Your task to perform on an android device: see tabs open on other devices in the chrome app Image 0: 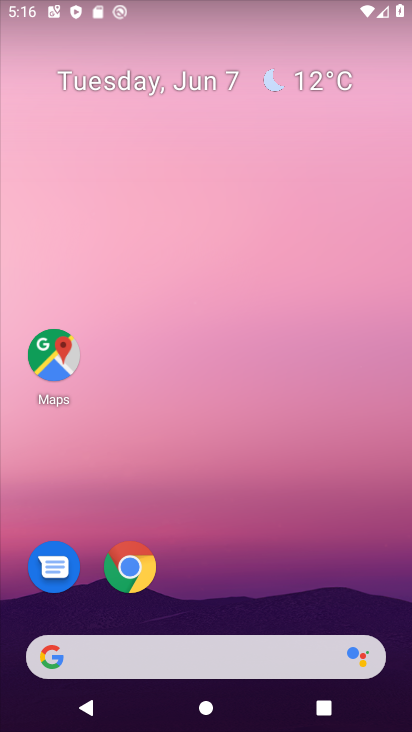
Step 0: drag from (267, 551) to (223, 32)
Your task to perform on an android device: see tabs open on other devices in the chrome app Image 1: 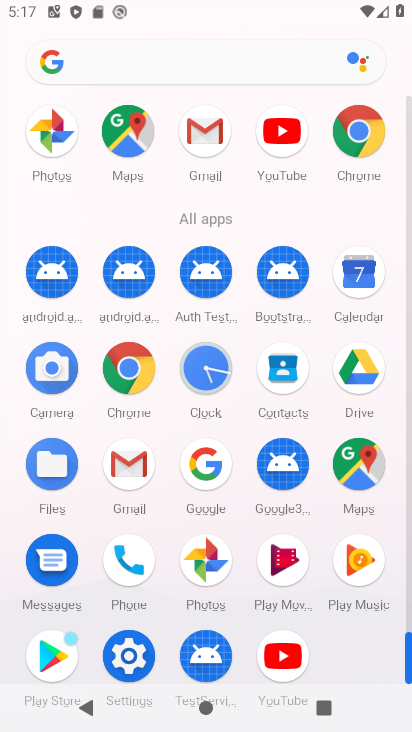
Step 1: drag from (5, 596) to (29, 246)
Your task to perform on an android device: see tabs open on other devices in the chrome app Image 2: 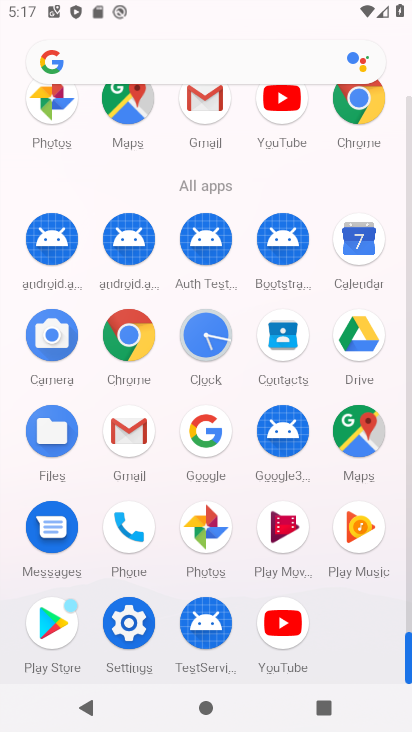
Step 2: click (126, 332)
Your task to perform on an android device: see tabs open on other devices in the chrome app Image 3: 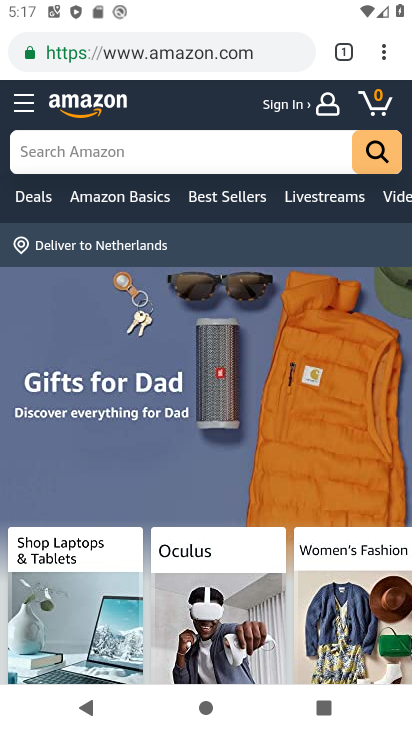
Step 3: task complete